Your task to perform on an android device: Is it going to rain tomorrow? Image 0: 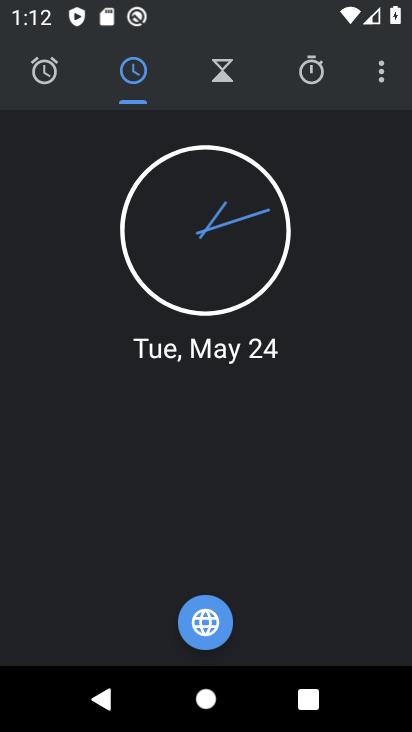
Step 0: press home button
Your task to perform on an android device: Is it going to rain tomorrow? Image 1: 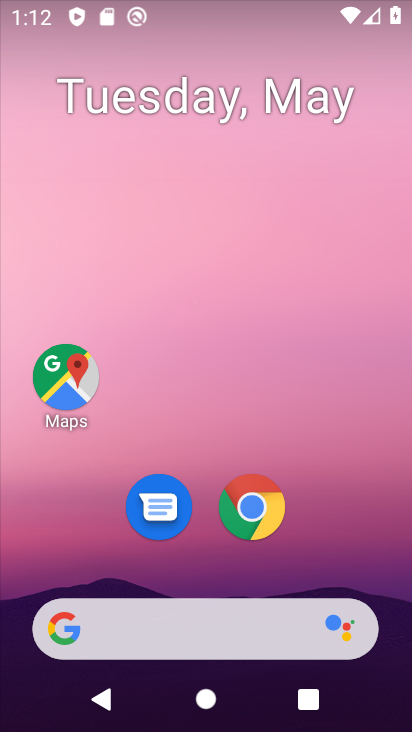
Step 1: drag from (396, 557) to (352, 102)
Your task to perform on an android device: Is it going to rain tomorrow? Image 2: 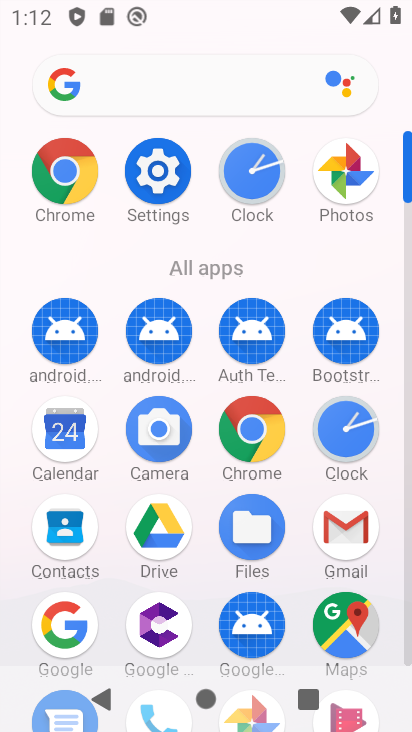
Step 2: click (74, 167)
Your task to perform on an android device: Is it going to rain tomorrow? Image 3: 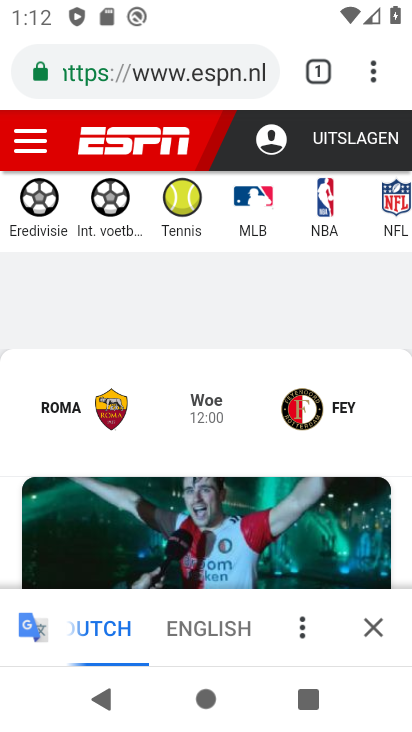
Step 3: click (193, 50)
Your task to perform on an android device: Is it going to rain tomorrow? Image 4: 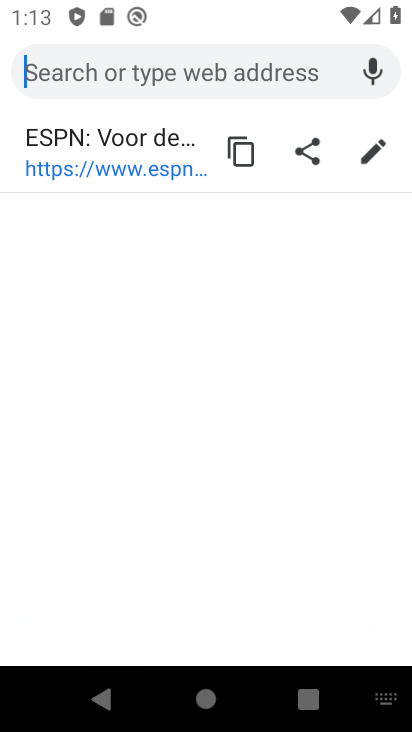
Step 4: type "Is it going to rain tomorrow?"
Your task to perform on an android device: Is it going to rain tomorrow? Image 5: 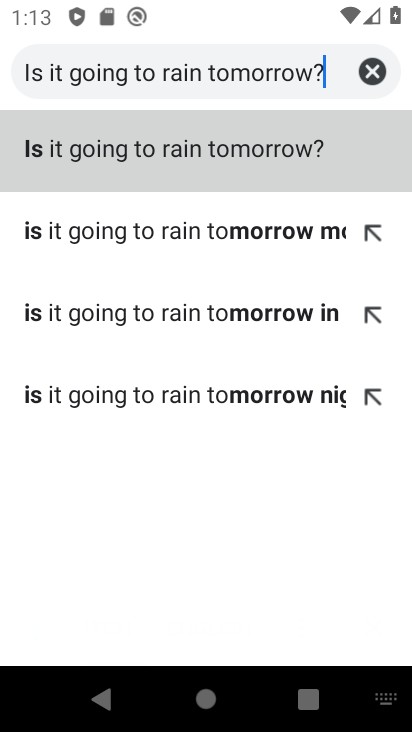
Step 5: click (281, 138)
Your task to perform on an android device: Is it going to rain tomorrow? Image 6: 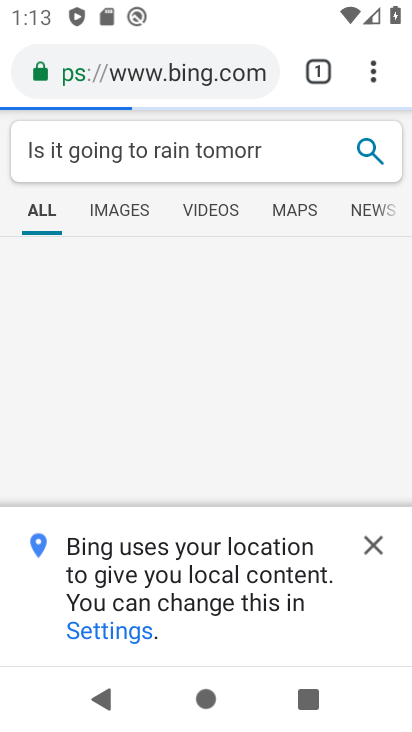
Step 6: drag from (330, 542) to (407, 544)
Your task to perform on an android device: Is it going to rain tomorrow? Image 7: 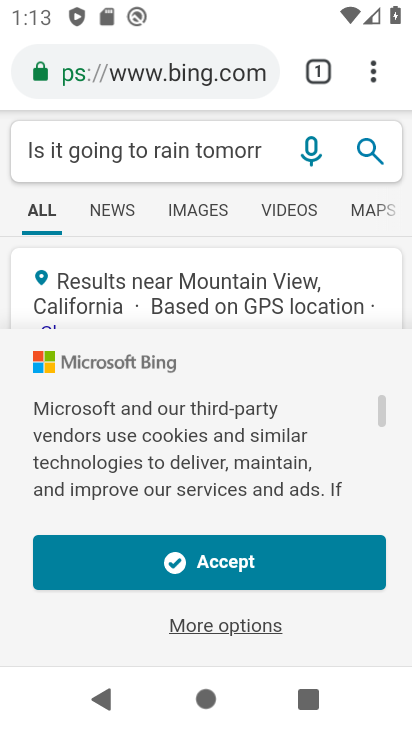
Step 7: click (325, 548)
Your task to perform on an android device: Is it going to rain tomorrow? Image 8: 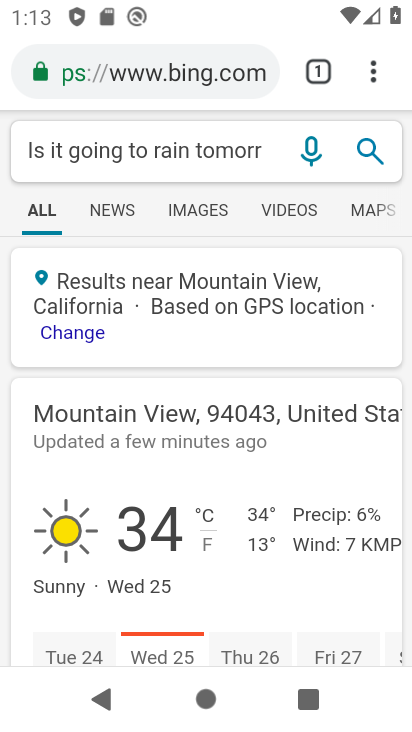
Step 8: task complete